Your task to perform on an android device: Open location settings Image 0: 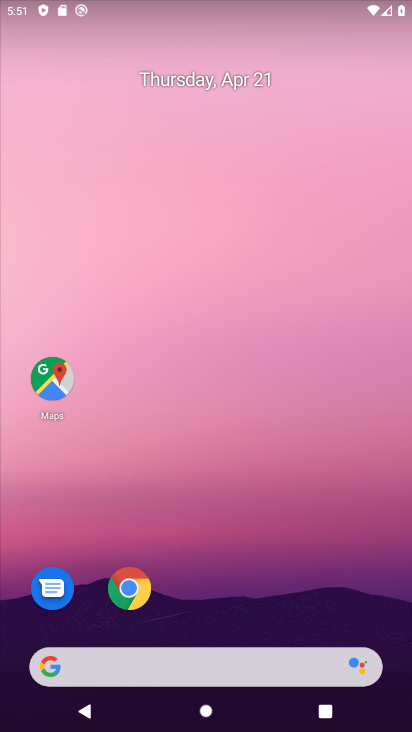
Step 0: drag from (258, 593) to (251, 237)
Your task to perform on an android device: Open location settings Image 1: 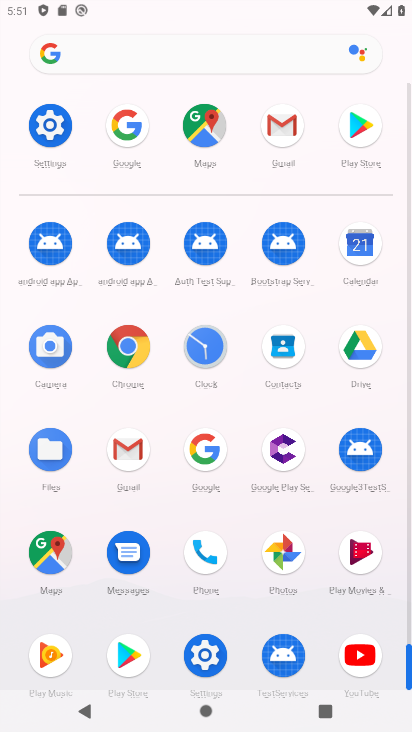
Step 1: click (54, 130)
Your task to perform on an android device: Open location settings Image 2: 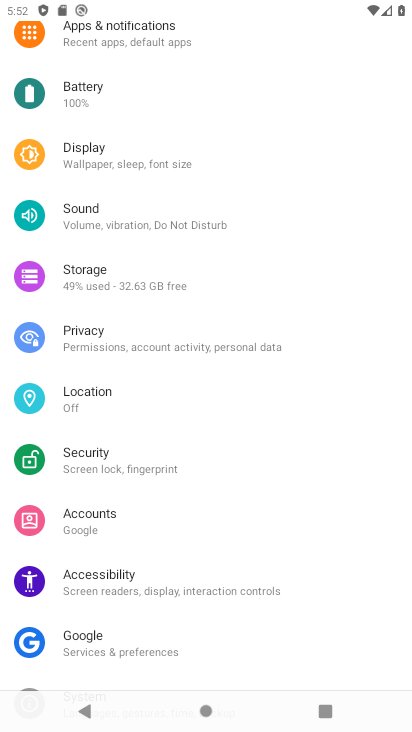
Step 2: drag from (233, 593) to (314, 272)
Your task to perform on an android device: Open location settings Image 3: 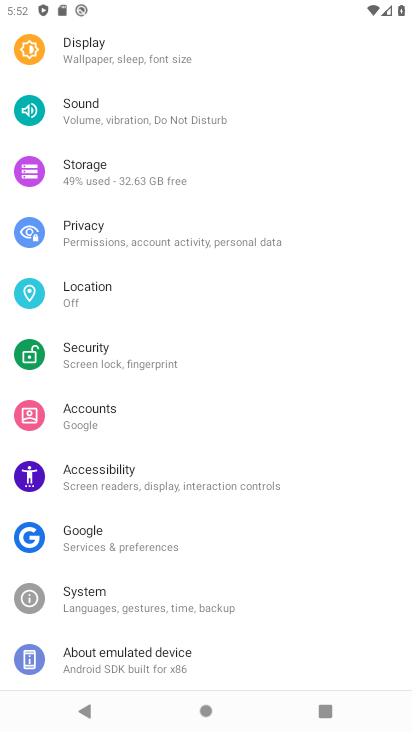
Step 3: click (87, 287)
Your task to perform on an android device: Open location settings Image 4: 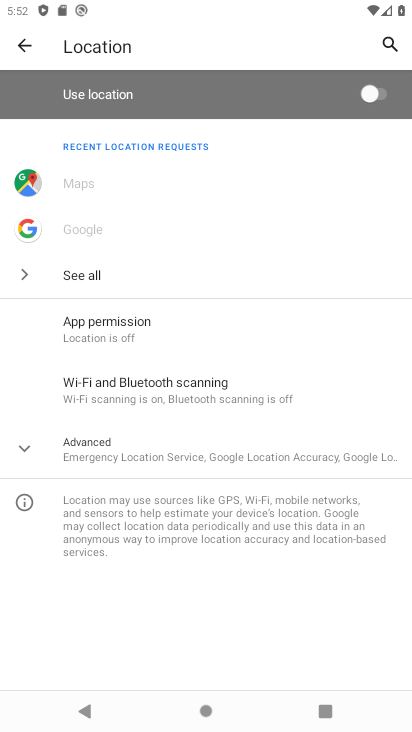
Step 4: task complete